Your task to perform on an android device: Open calendar and show me the second week of next month Image 0: 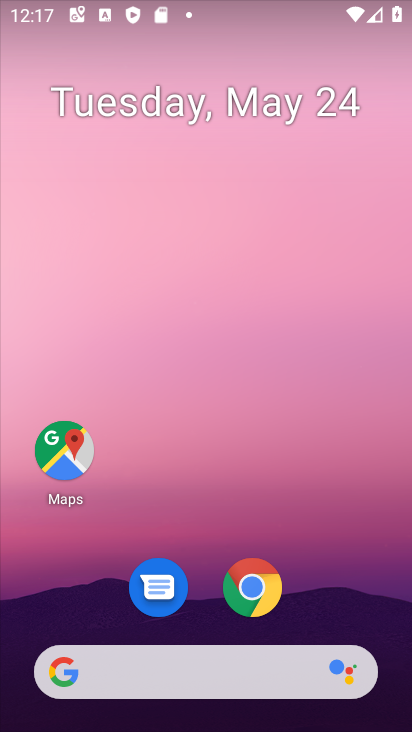
Step 0: drag from (154, 718) to (168, 0)
Your task to perform on an android device: Open calendar and show me the second week of next month Image 1: 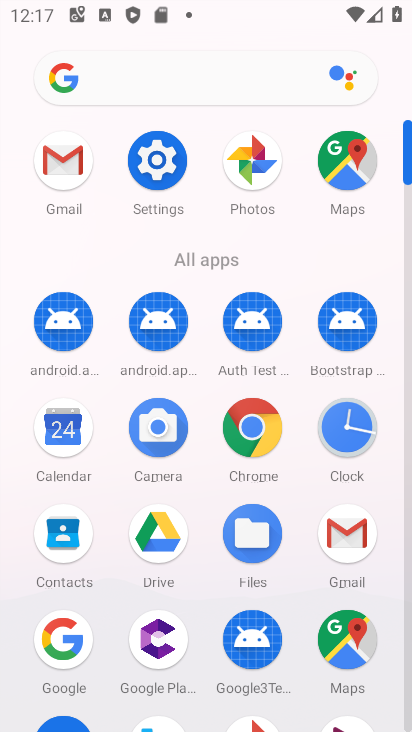
Step 1: click (63, 435)
Your task to perform on an android device: Open calendar and show me the second week of next month Image 2: 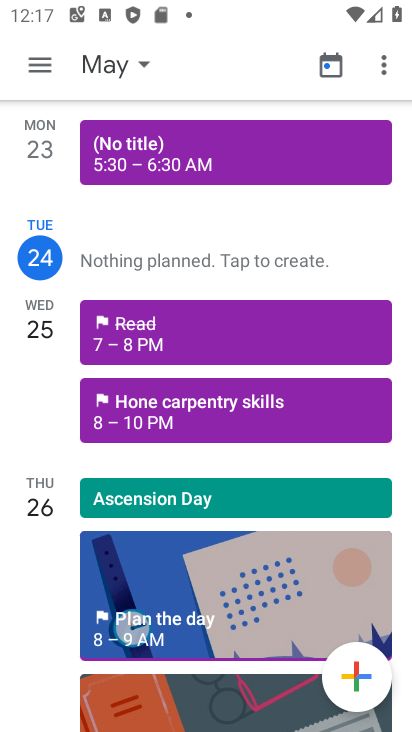
Step 2: click (92, 76)
Your task to perform on an android device: Open calendar and show me the second week of next month Image 3: 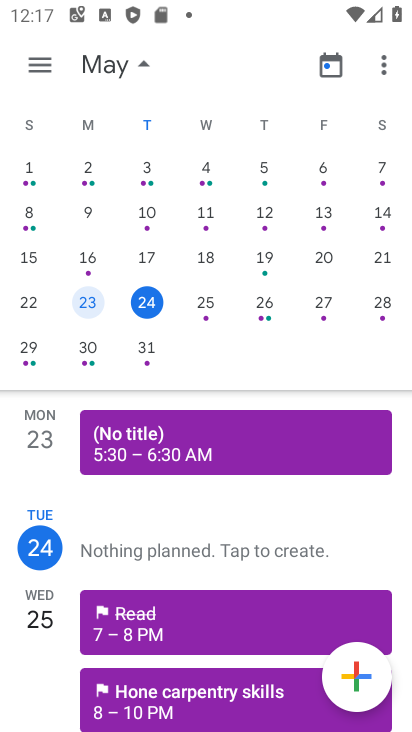
Step 3: drag from (312, 194) to (9, 210)
Your task to perform on an android device: Open calendar and show me the second week of next month Image 4: 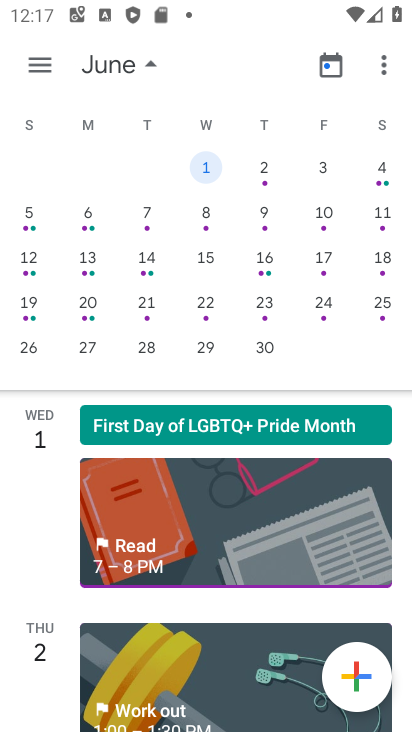
Step 4: click (31, 218)
Your task to perform on an android device: Open calendar and show me the second week of next month Image 5: 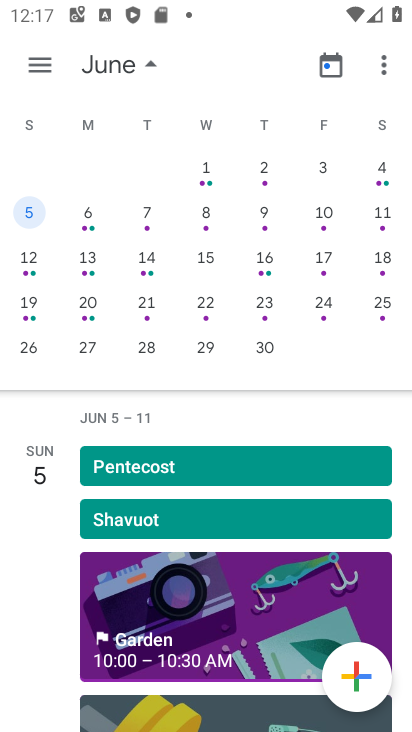
Step 5: task complete